Your task to perform on an android device: see tabs open on other devices in the chrome app Image 0: 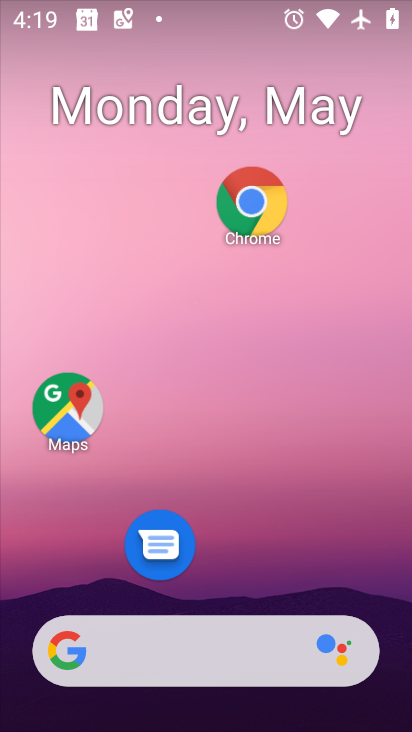
Step 0: click (250, 193)
Your task to perform on an android device: see tabs open on other devices in the chrome app Image 1: 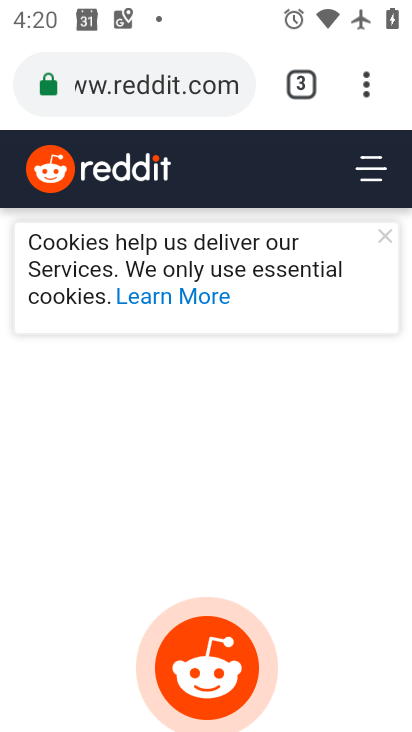
Step 1: click (358, 77)
Your task to perform on an android device: see tabs open on other devices in the chrome app Image 2: 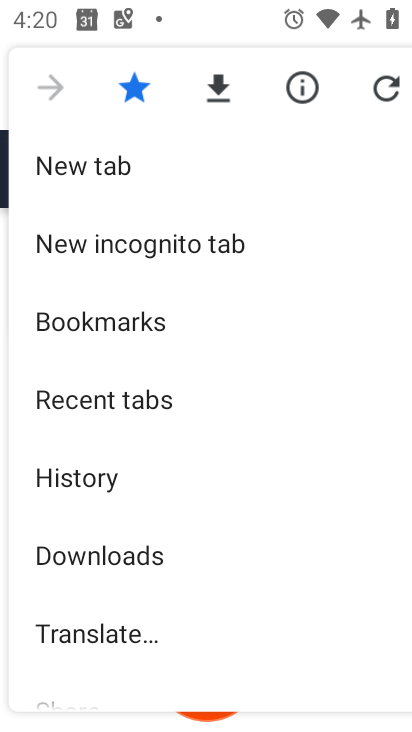
Step 2: click (141, 409)
Your task to perform on an android device: see tabs open on other devices in the chrome app Image 3: 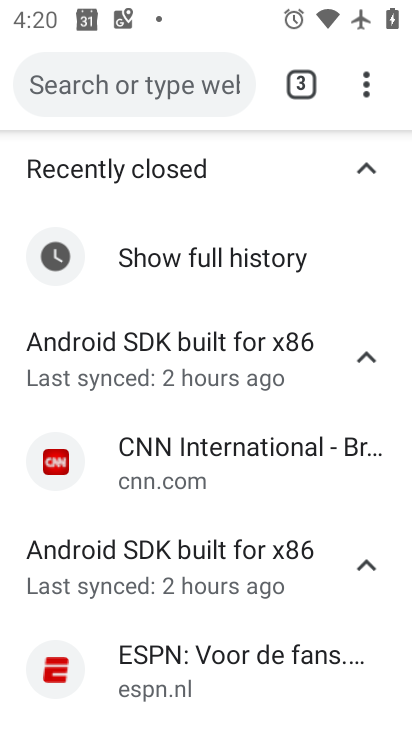
Step 3: task complete